Your task to perform on an android device: turn vacation reply on in the gmail app Image 0: 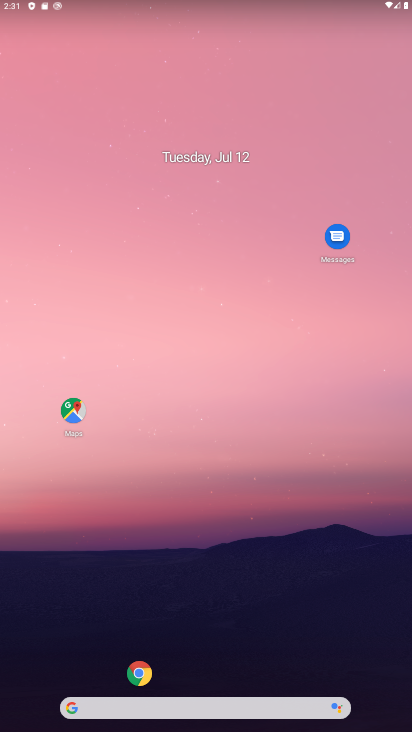
Step 0: drag from (38, 685) to (121, 184)
Your task to perform on an android device: turn vacation reply on in the gmail app Image 1: 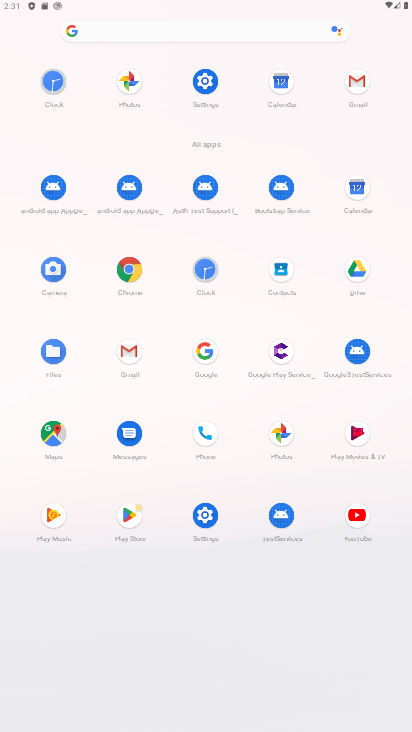
Step 1: click (132, 353)
Your task to perform on an android device: turn vacation reply on in the gmail app Image 2: 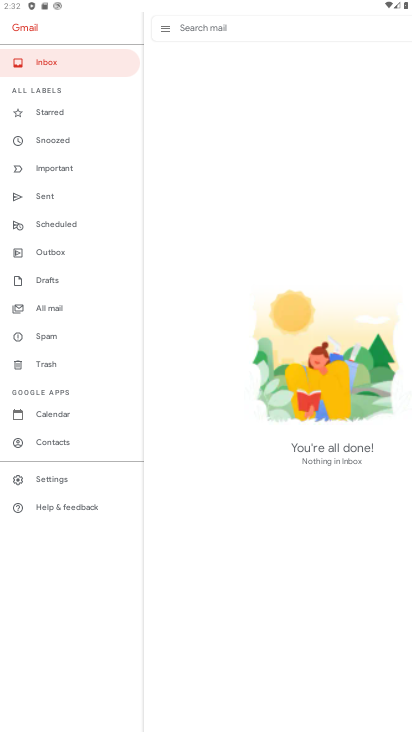
Step 2: click (59, 62)
Your task to perform on an android device: turn vacation reply on in the gmail app Image 3: 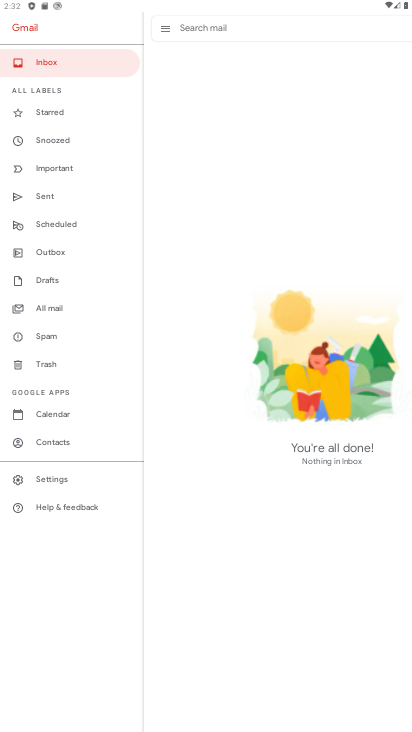
Step 3: task complete